Your task to perform on an android device: Go to display settings Image 0: 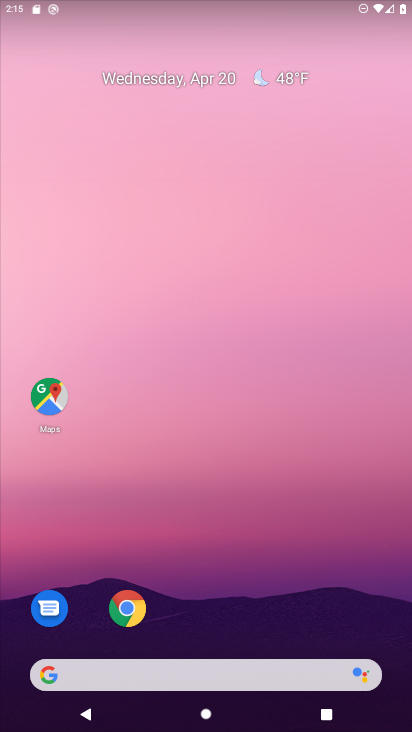
Step 0: drag from (284, 617) to (194, 183)
Your task to perform on an android device: Go to display settings Image 1: 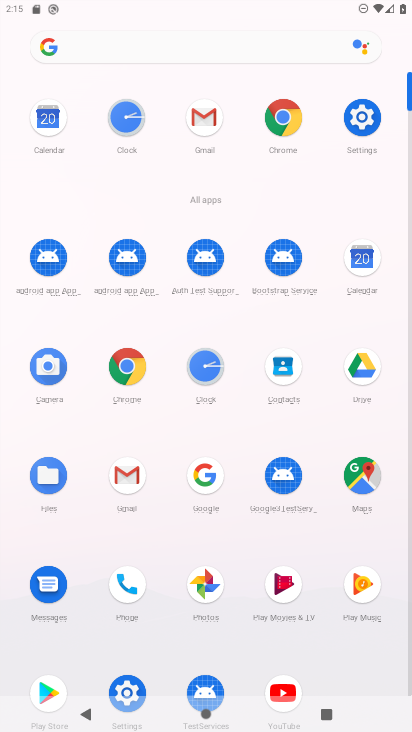
Step 1: click (356, 126)
Your task to perform on an android device: Go to display settings Image 2: 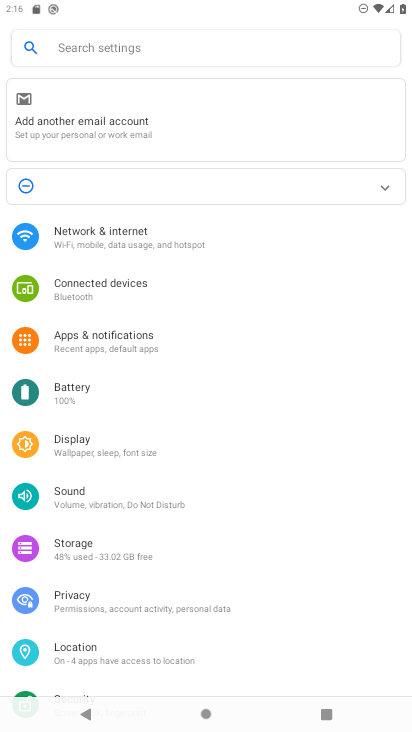
Step 2: click (149, 458)
Your task to perform on an android device: Go to display settings Image 3: 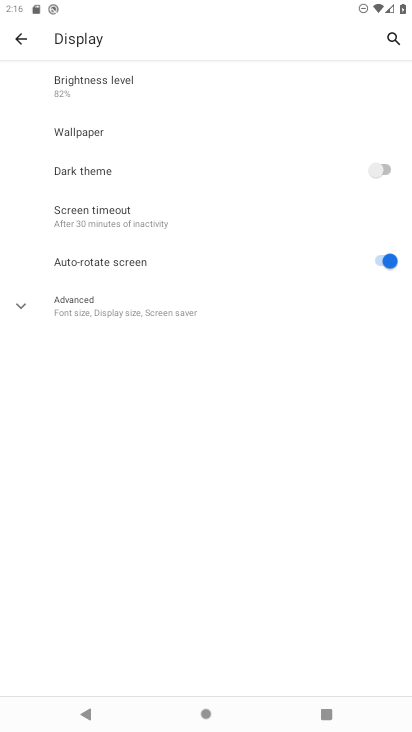
Step 3: task complete